Your task to perform on an android device: turn off translation in the chrome app Image 0: 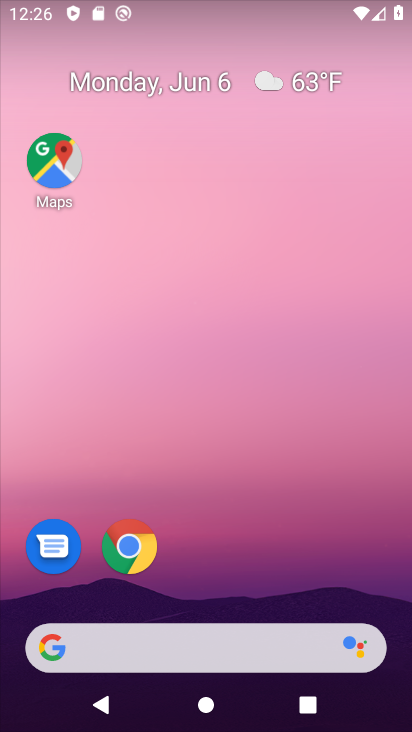
Step 0: drag from (197, 595) to (208, 4)
Your task to perform on an android device: turn off translation in the chrome app Image 1: 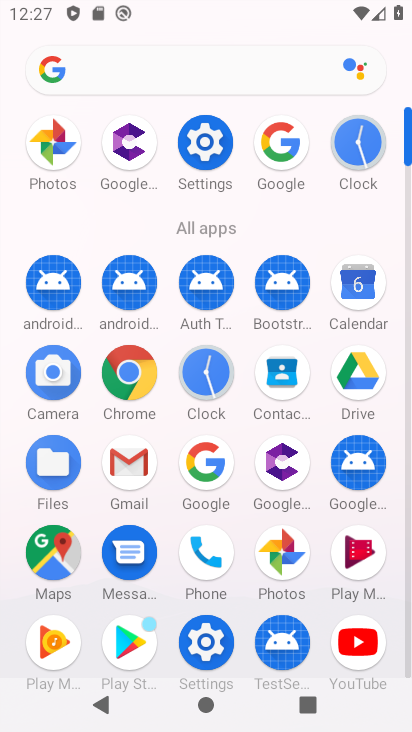
Step 1: click (116, 373)
Your task to perform on an android device: turn off translation in the chrome app Image 2: 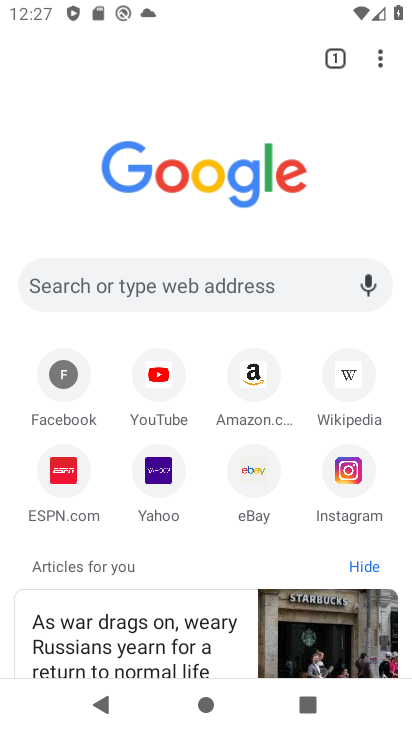
Step 2: click (379, 63)
Your task to perform on an android device: turn off translation in the chrome app Image 3: 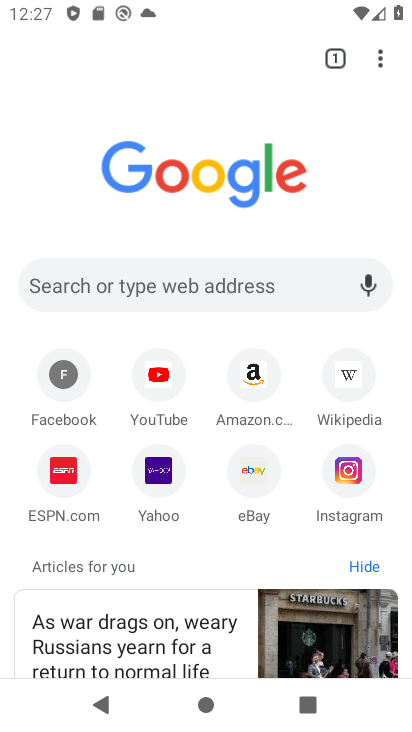
Step 3: drag from (385, 61) to (176, 486)
Your task to perform on an android device: turn off translation in the chrome app Image 4: 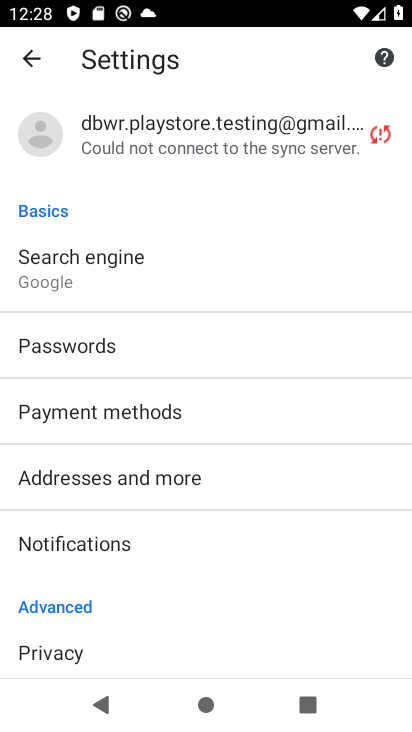
Step 4: drag from (189, 607) to (106, 36)
Your task to perform on an android device: turn off translation in the chrome app Image 5: 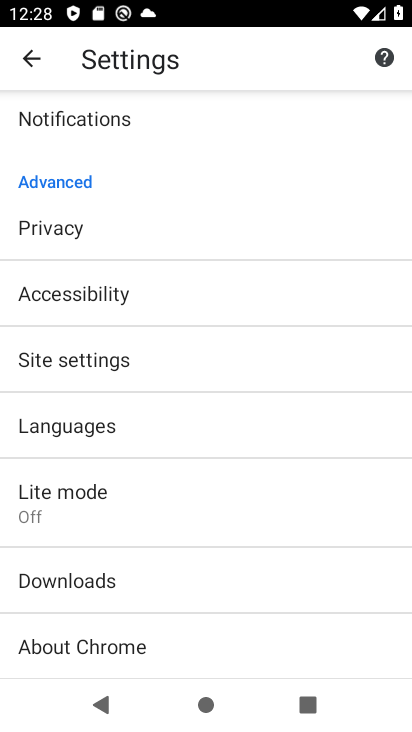
Step 5: click (77, 428)
Your task to perform on an android device: turn off translation in the chrome app Image 6: 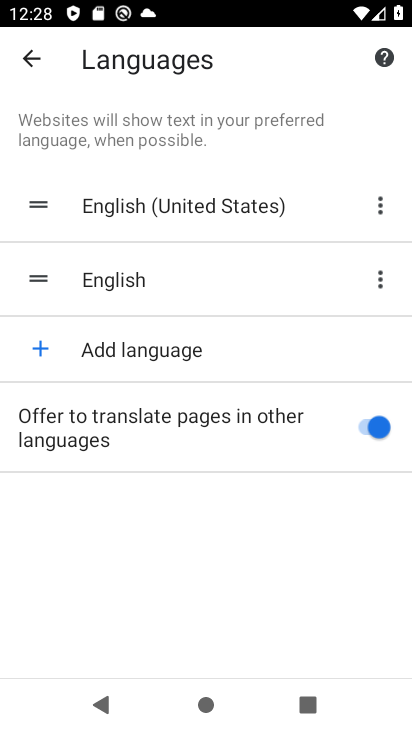
Step 6: click (359, 418)
Your task to perform on an android device: turn off translation in the chrome app Image 7: 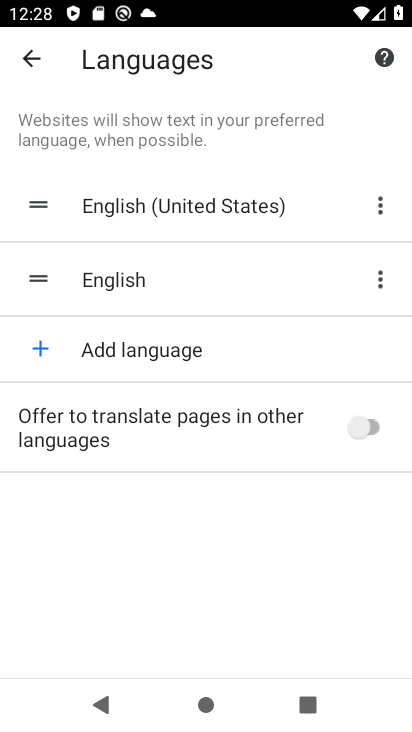
Step 7: task complete